Your task to perform on an android device: Go to privacy settings Image 0: 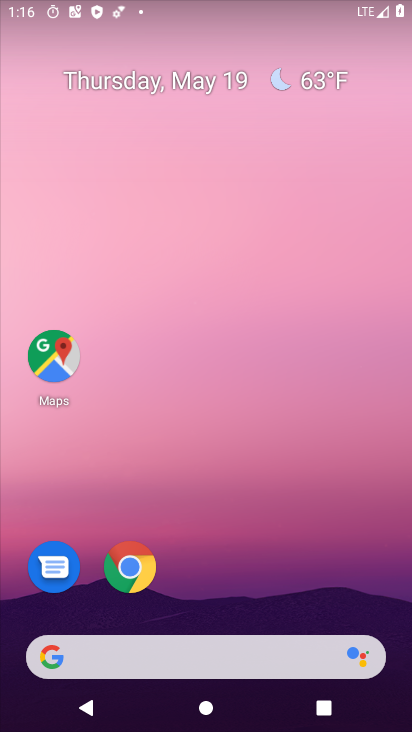
Step 0: press home button
Your task to perform on an android device: Go to privacy settings Image 1: 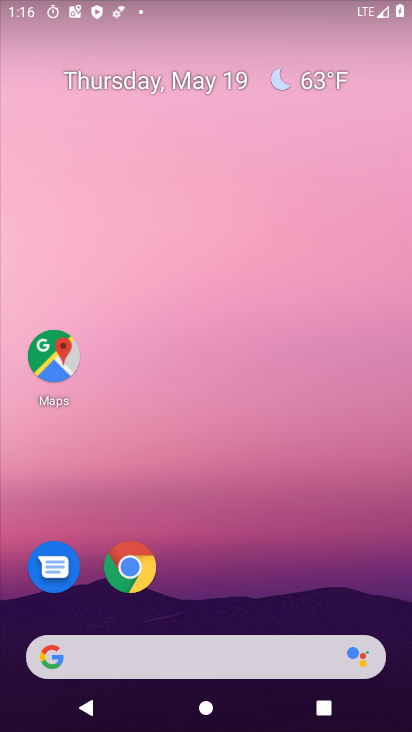
Step 1: drag from (166, 663) to (270, 196)
Your task to perform on an android device: Go to privacy settings Image 2: 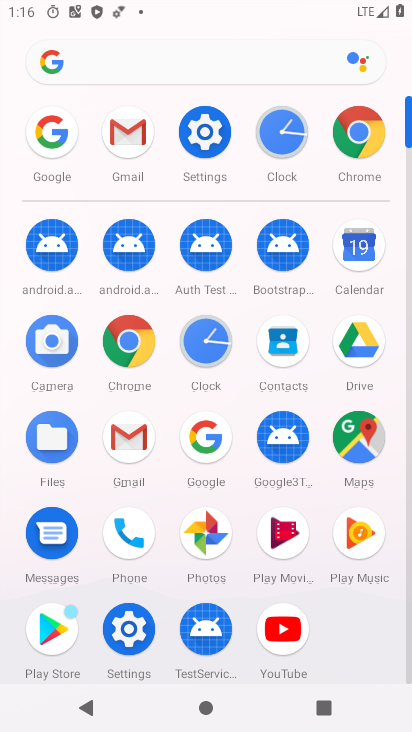
Step 2: click (215, 133)
Your task to perform on an android device: Go to privacy settings Image 3: 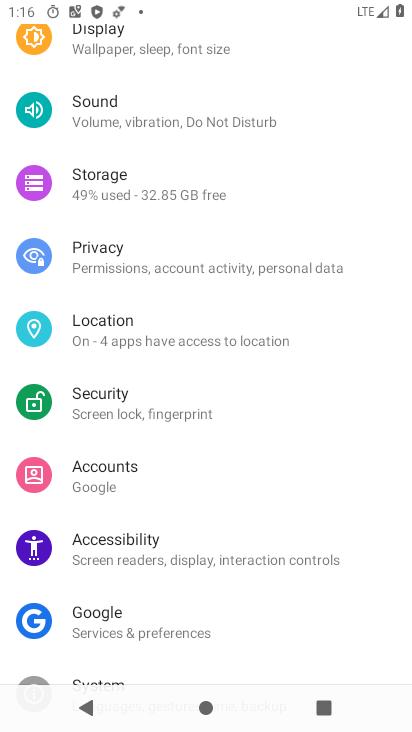
Step 3: click (112, 266)
Your task to perform on an android device: Go to privacy settings Image 4: 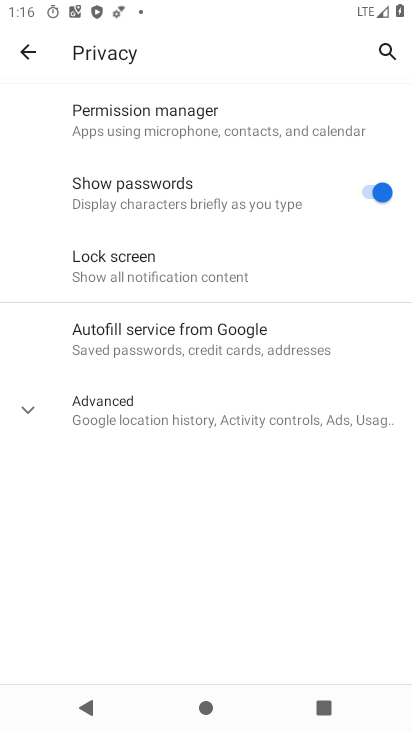
Step 4: task complete